Your task to perform on an android device: all mails in gmail Image 0: 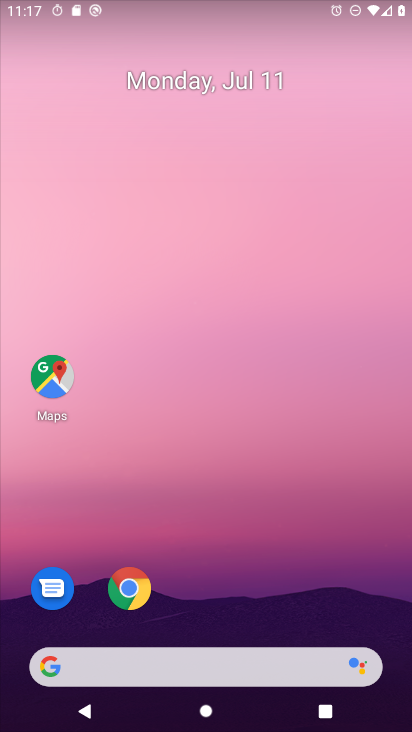
Step 0: drag from (208, 522) to (288, 62)
Your task to perform on an android device: all mails in gmail Image 1: 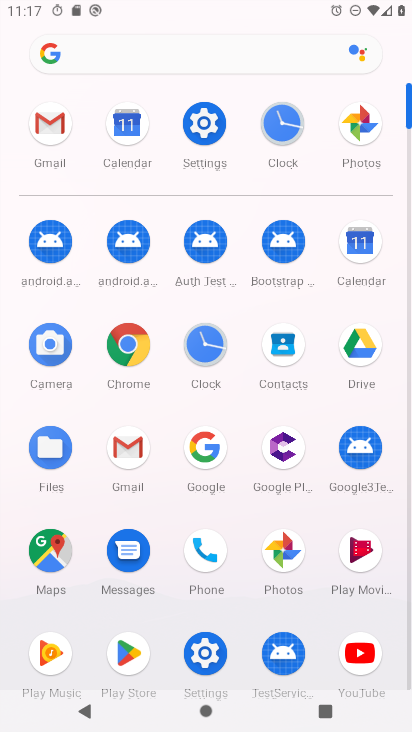
Step 1: click (60, 113)
Your task to perform on an android device: all mails in gmail Image 2: 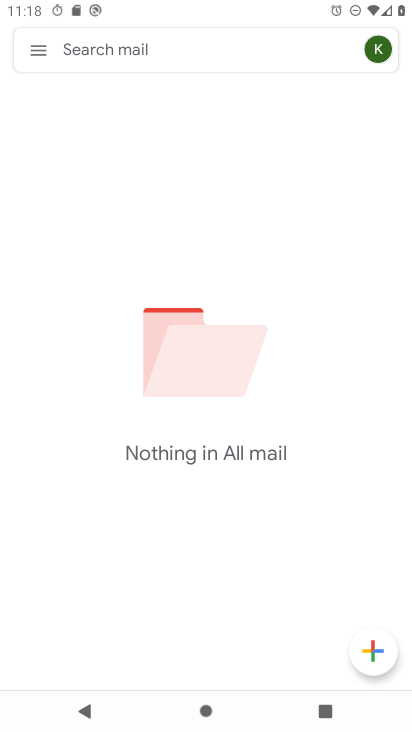
Step 2: task complete